Your task to perform on an android device: empty trash in the gmail app Image 0: 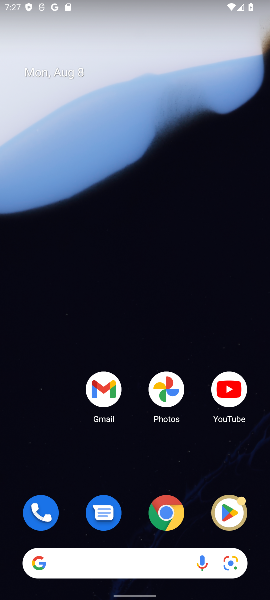
Step 0: click (106, 395)
Your task to perform on an android device: empty trash in the gmail app Image 1: 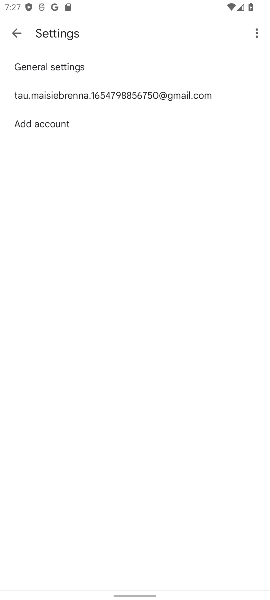
Step 1: click (22, 27)
Your task to perform on an android device: empty trash in the gmail app Image 2: 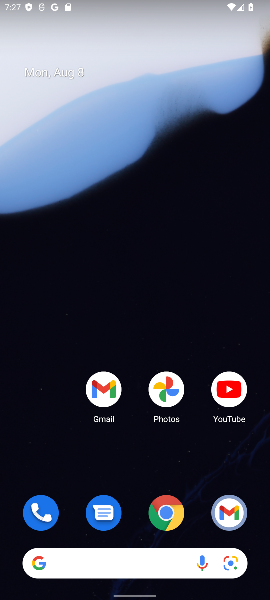
Step 2: click (102, 391)
Your task to perform on an android device: empty trash in the gmail app Image 3: 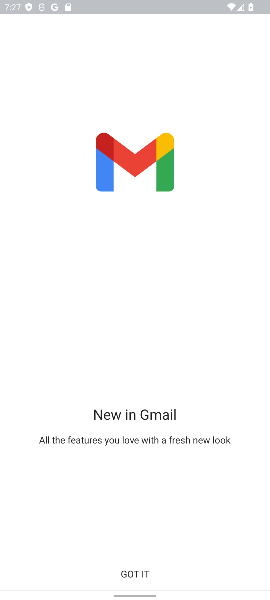
Step 3: click (169, 571)
Your task to perform on an android device: empty trash in the gmail app Image 4: 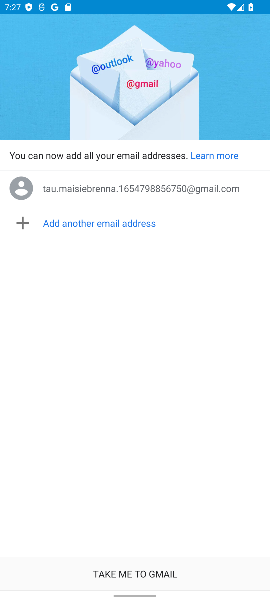
Step 4: click (144, 580)
Your task to perform on an android device: empty trash in the gmail app Image 5: 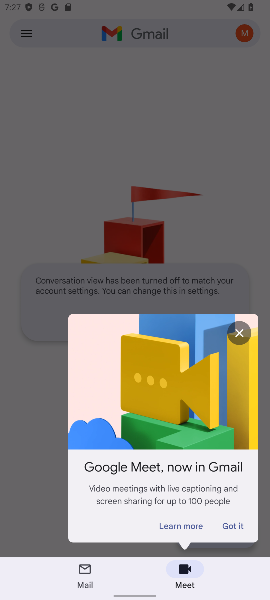
Step 5: click (239, 338)
Your task to perform on an android device: empty trash in the gmail app Image 6: 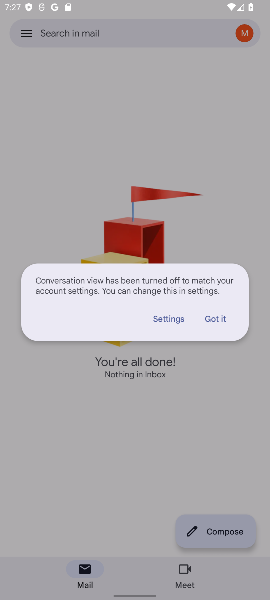
Step 6: click (25, 33)
Your task to perform on an android device: empty trash in the gmail app Image 7: 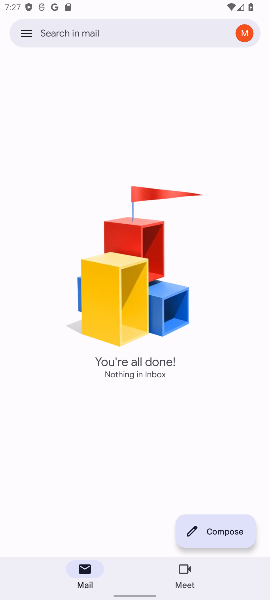
Step 7: click (25, 33)
Your task to perform on an android device: empty trash in the gmail app Image 8: 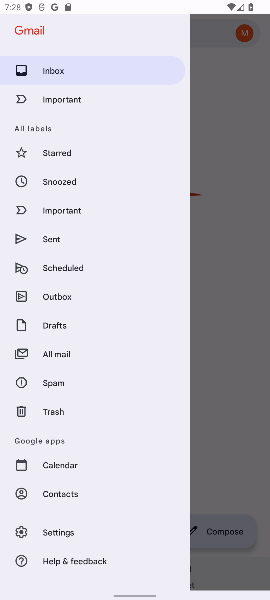
Step 8: click (59, 415)
Your task to perform on an android device: empty trash in the gmail app Image 9: 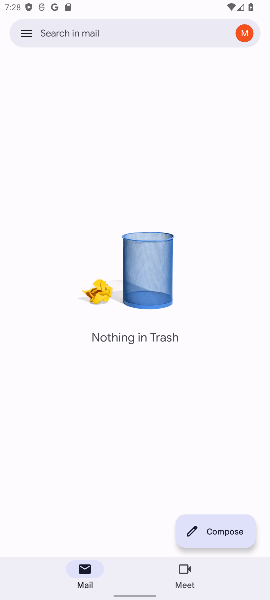
Step 9: task complete